Your task to perform on an android device: allow cookies in the chrome app Image 0: 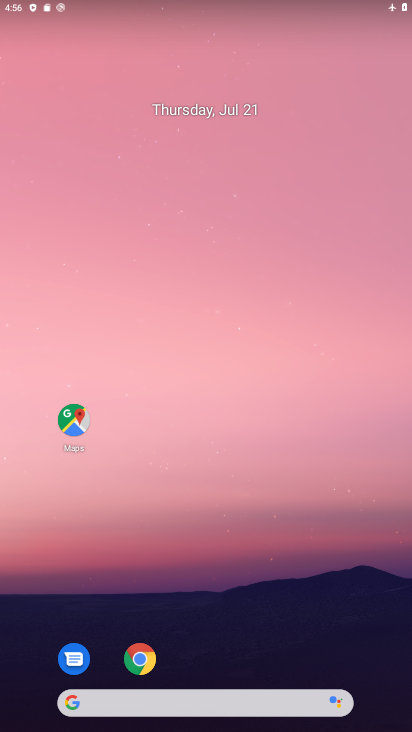
Step 0: click (141, 661)
Your task to perform on an android device: allow cookies in the chrome app Image 1: 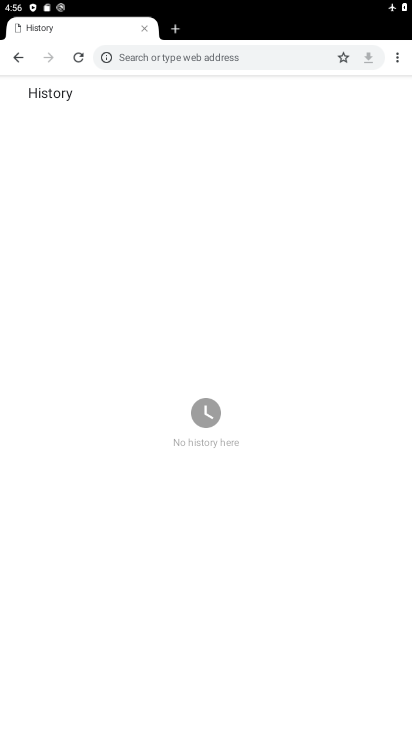
Step 1: click (396, 59)
Your task to perform on an android device: allow cookies in the chrome app Image 2: 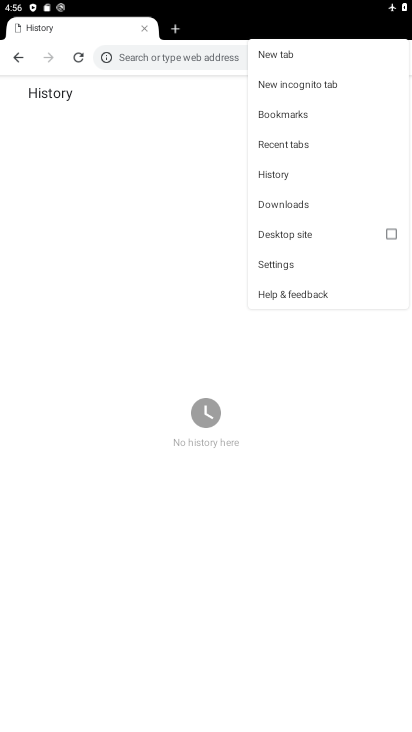
Step 2: click (282, 260)
Your task to perform on an android device: allow cookies in the chrome app Image 3: 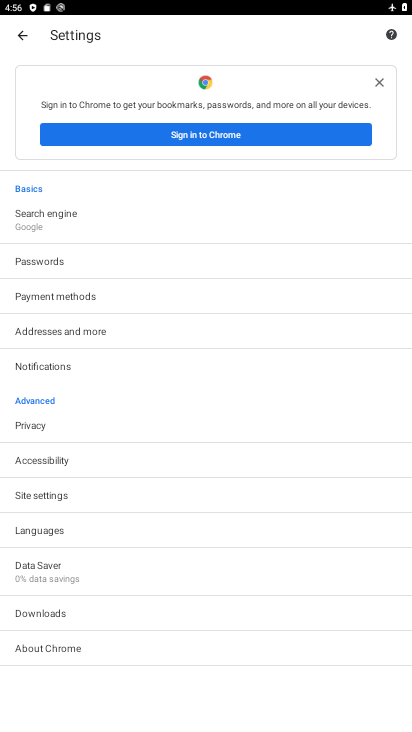
Step 3: click (37, 495)
Your task to perform on an android device: allow cookies in the chrome app Image 4: 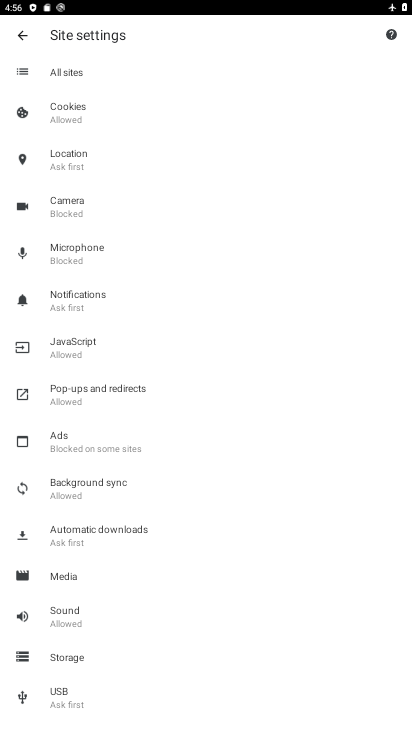
Step 4: click (68, 110)
Your task to perform on an android device: allow cookies in the chrome app Image 5: 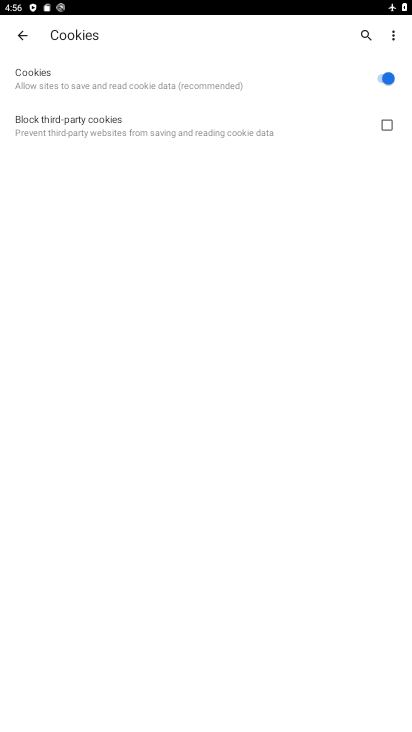
Step 5: task complete